Your task to perform on an android device: Search for vegetarian restaurants on Maps Image 0: 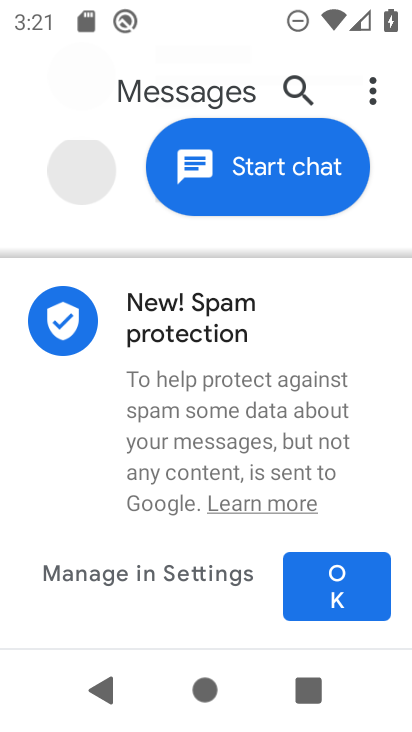
Step 0: press home button
Your task to perform on an android device: Search for vegetarian restaurants on Maps Image 1: 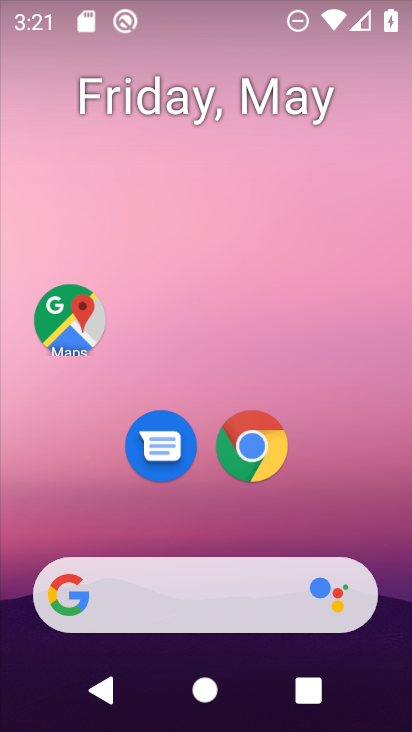
Step 1: click (78, 322)
Your task to perform on an android device: Search for vegetarian restaurants on Maps Image 2: 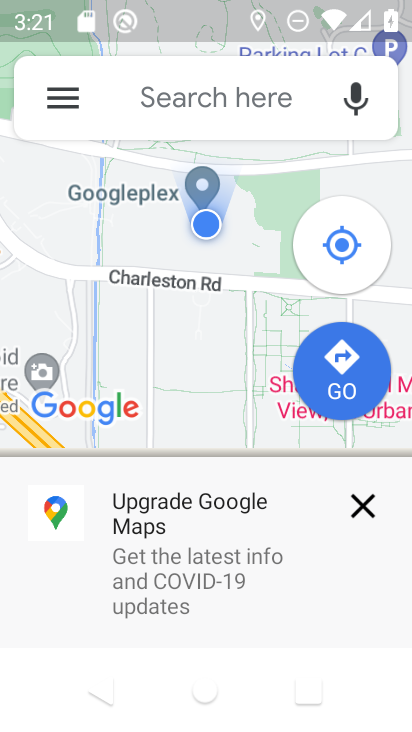
Step 2: click (357, 502)
Your task to perform on an android device: Search for vegetarian restaurants on Maps Image 3: 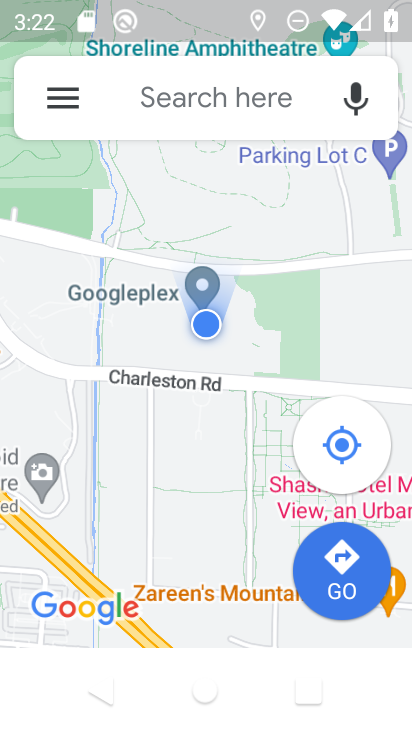
Step 3: click (215, 107)
Your task to perform on an android device: Search for vegetarian restaurants on Maps Image 4: 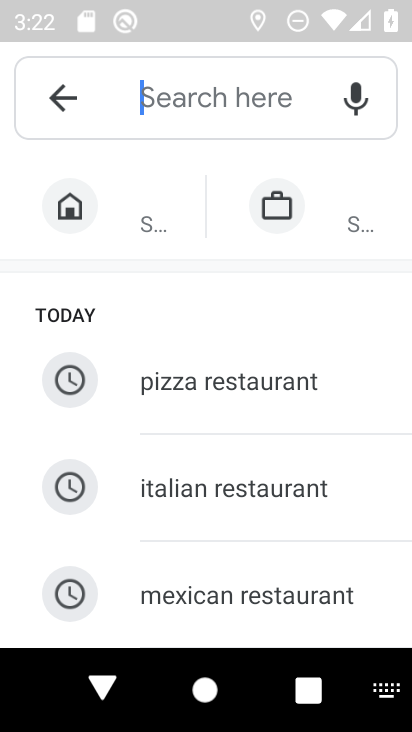
Step 4: type " vegetarian restaurants "
Your task to perform on an android device: Search for vegetarian restaurants on Maps Image 5: 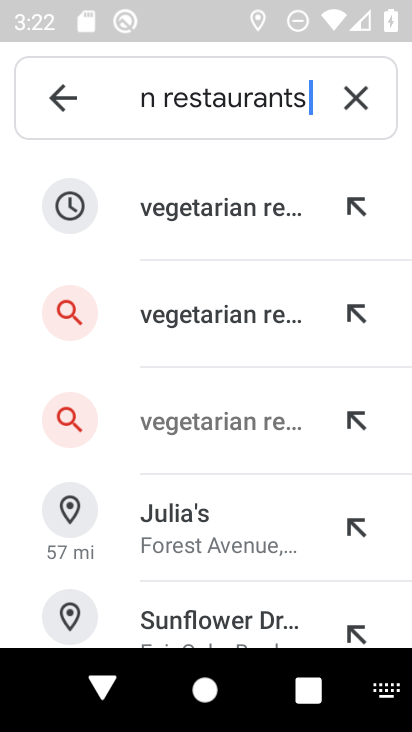
Step 5: click (201, 205)
Your task to perform on an android device: Search for vegetarian restaurants on Maps Image 6: 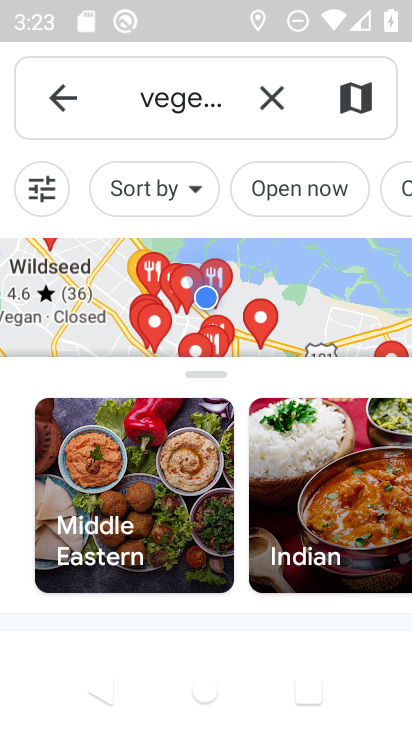
Step 6: task complete